Your task to perform on an android device: add a label to a message in the gmail app Image 0: 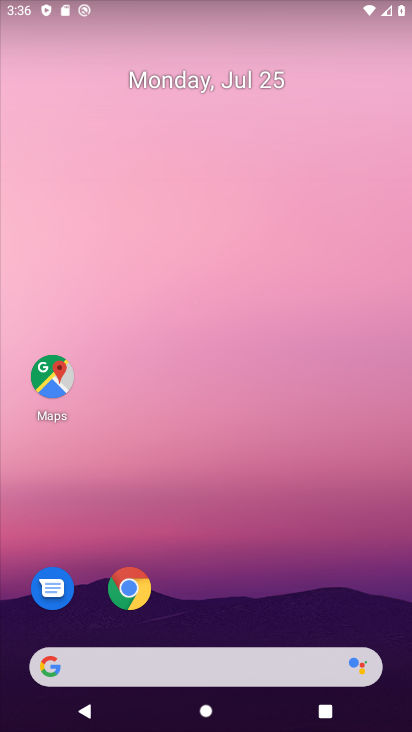
Step 0: drag from (237, 723) to (240, 227)
Your task to perform on an android device: add a label to a message in the gmail app Image 1: 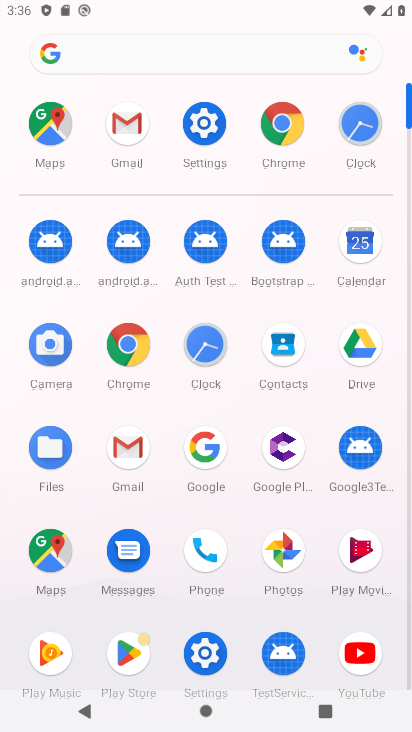
Step 1: click (134, 443)
Your task to perform on an android device: add a label to a message in the gmail app Image 2: 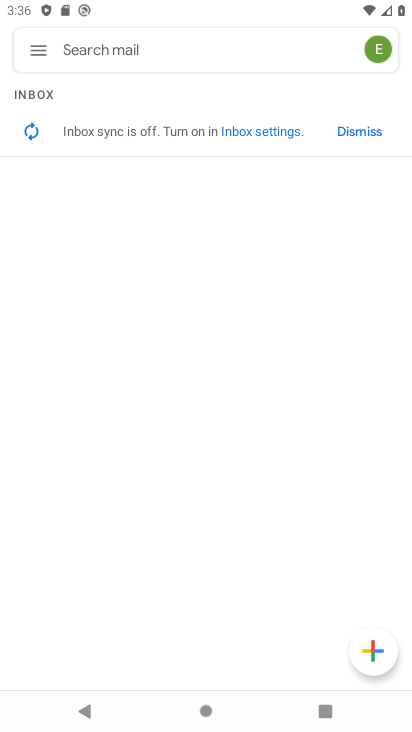
Step 2: click (34, 45)
Your task to perform on an android device: add a label to a message in the gmail app Image 3: 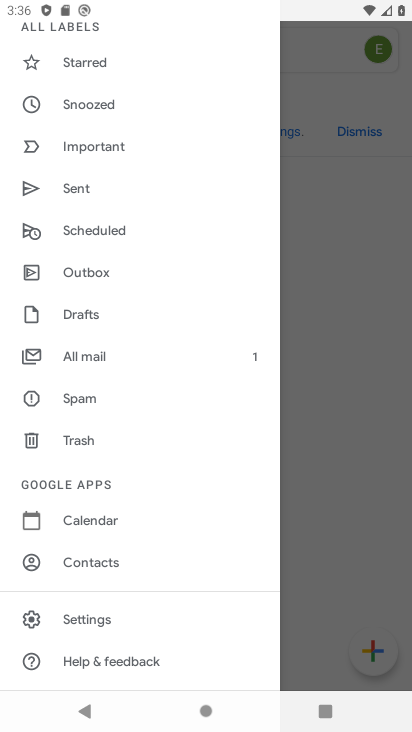
Step 3: drag from (206, 198) to (177, 660)
Your task to perform on an android device: add a label to a message in the gmail app Image 4: 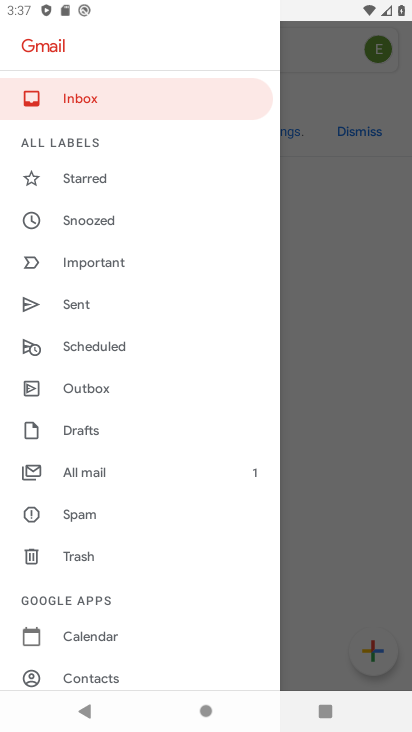
Step 4: click (80, 96)
Your task to perform on an android device: add a label to a message in the gmail app Image 5: 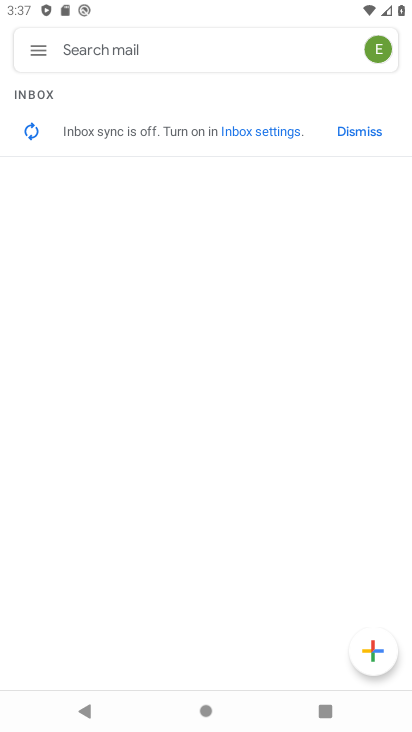
Step 5: press home button
Your task to perform on an android device: add a label to a message in the gmail app Image 6: 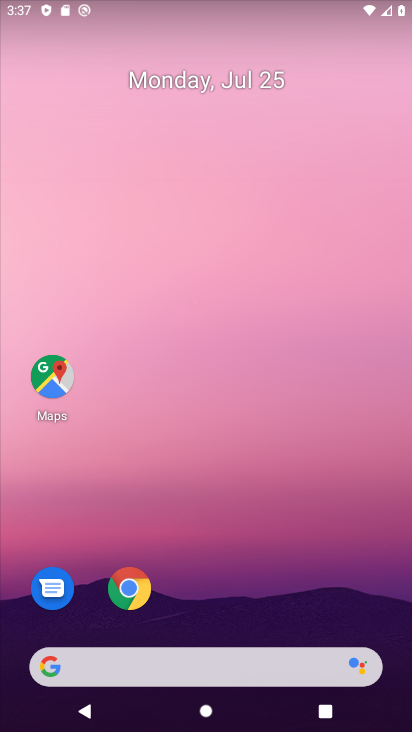
Step 6: drag from (237, 654) to (232, 29)
Your task to perform on an android device: add a label to a message in the gmail app Image 7: 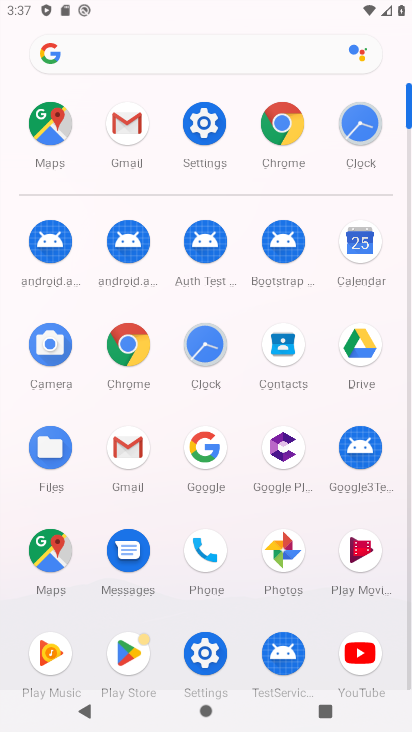
Step 7: click (128, 447)
Your task to perform on an android device: add a label to a message in the gmail app Image 8: 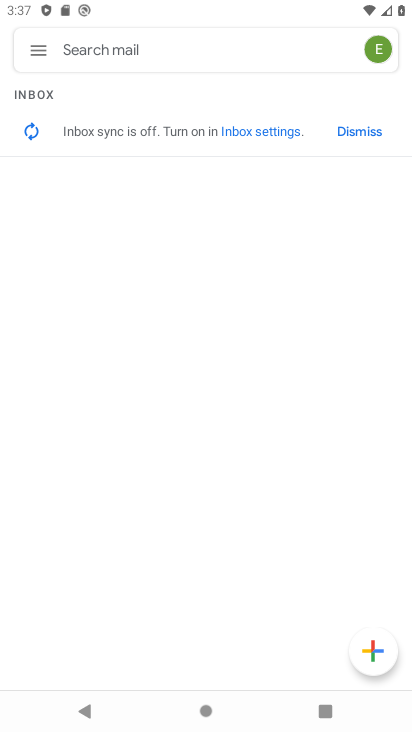
Step 8: task complete